Your task to perform on an android device: add a contact Image 0: 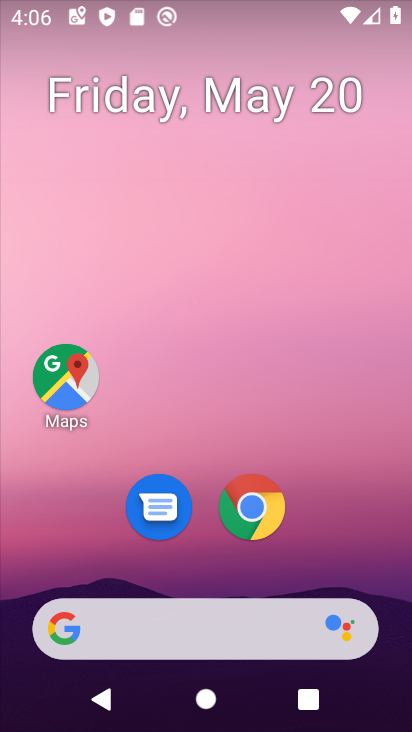
Step 0: drag from (345, 518) to (220, 88)
Your task to perform on an android device: add a contact Image 1: 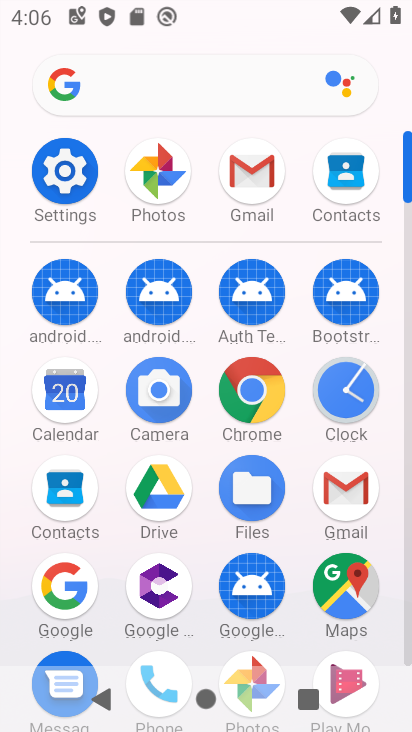
Step 1: click (65, 490)
Your task to perform on an android device: add a contact Image 2: 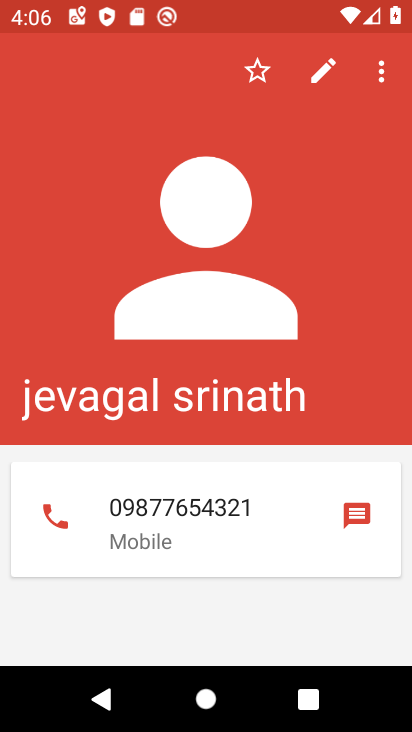
Step 2: press back button
Your task to perform on an android device: add a contact Image 3: 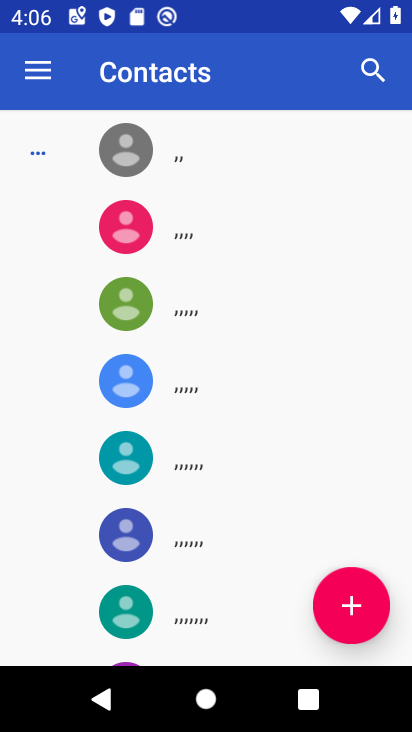
Step 3: click (353, 604)
Your task to perform on an android device: add a contact Image 4: 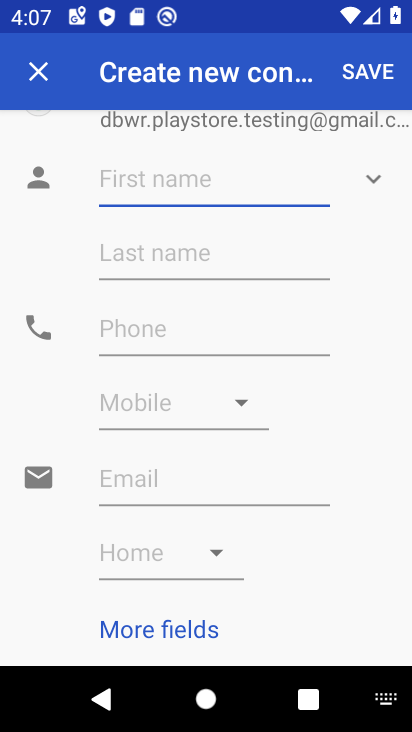
Step 4: type "Murli Manohar"
Your task to perform on an android device: add a contact Image 5: 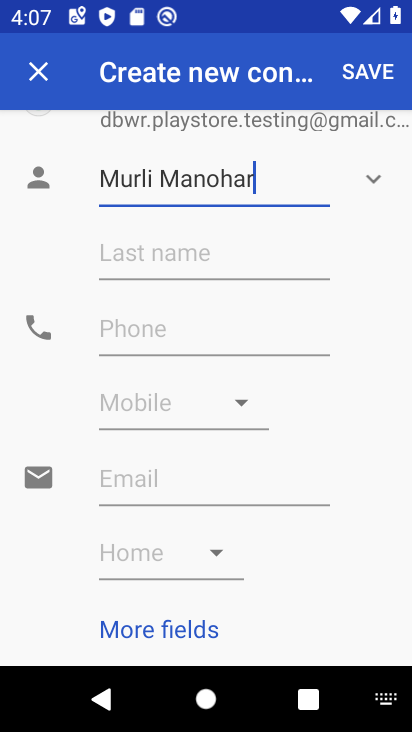
Step 5: click (258, 268)
Your task to perform on an android device: add a contact Image 6: 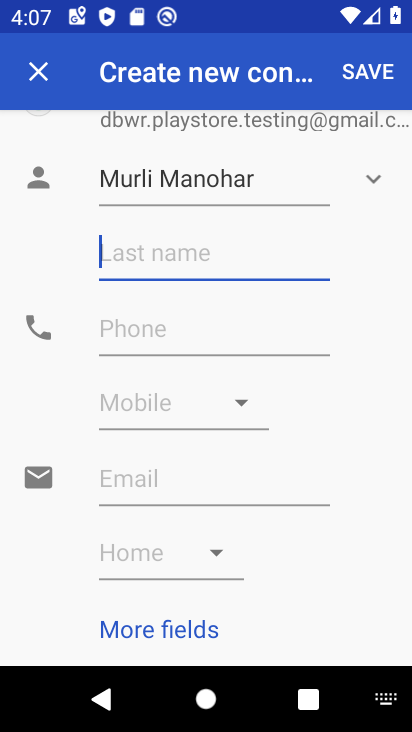
Step 6: type "Parasar"
Your task to perform on an android device: add a contact Image 7: 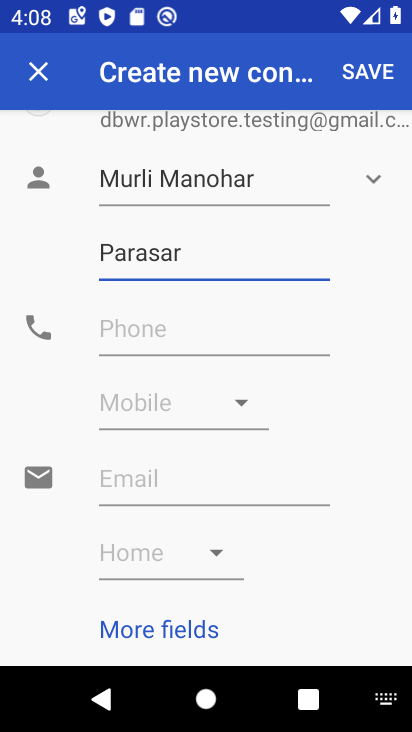
Step 7: click (287, 346)
Your task to perform on an android device: add a contact Image 8: 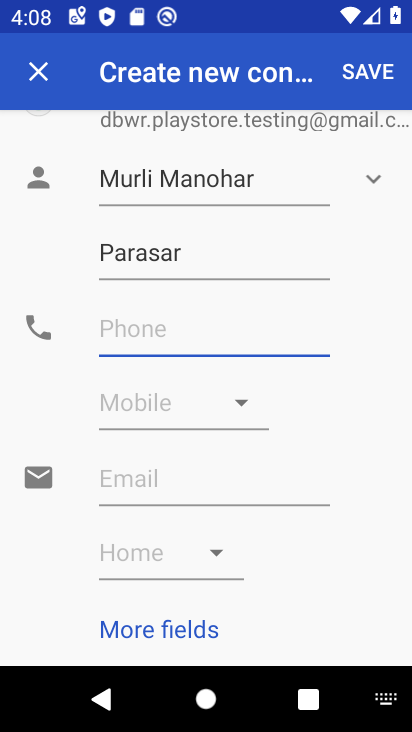
Step 8: type "09903587532"
Your task to perform on an android device: add a contact Image 9: 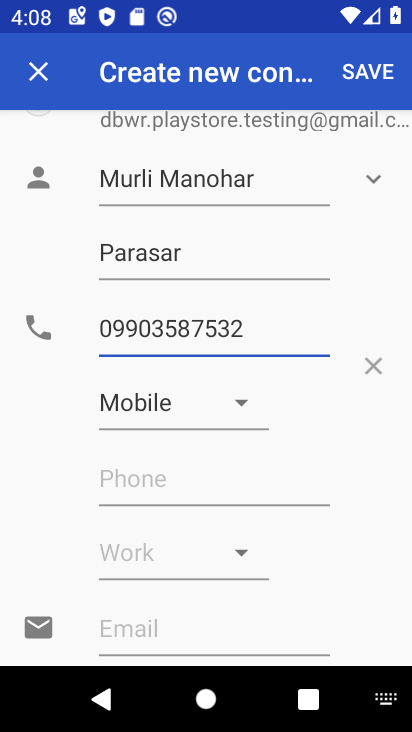
Step 9: click (370, 71)
Your task to perform on an android device: add a contact Image 10: 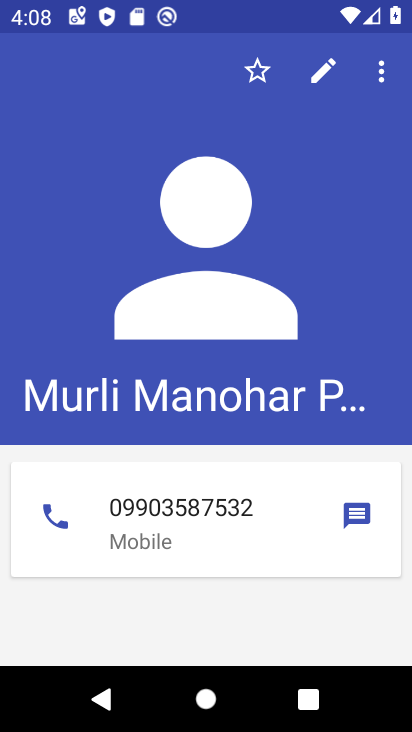
Step 10: task complete